Your task to perform on an android device: open app "Pandora - Music & Podcasts" (install if not already installed) and go to login screen Image 0: 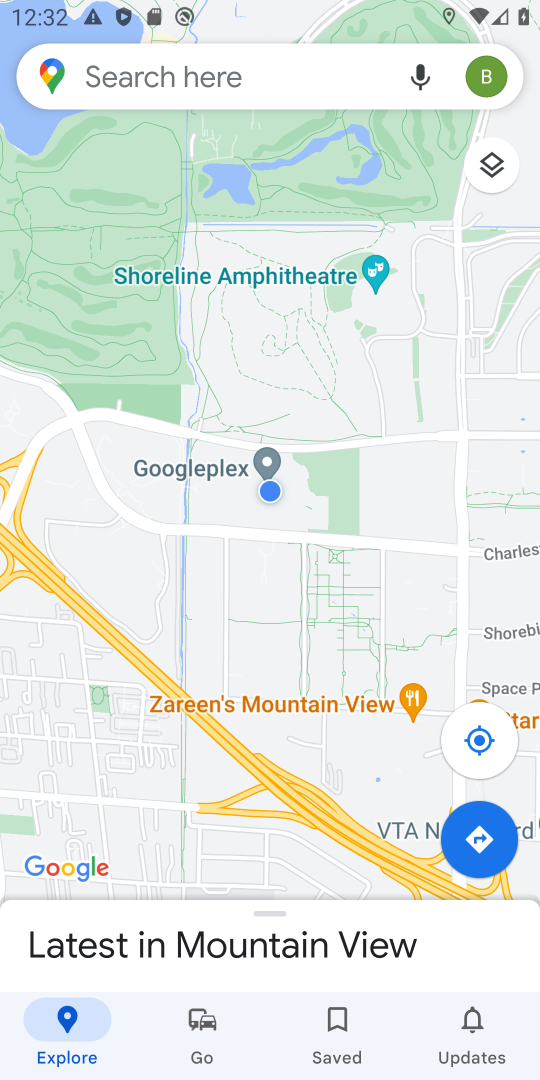
Step 0: press home button
Your task to perform on an android device: open app "Pandora - Music & Podcasts" (install if not already installed) and go to login screen Image 1: 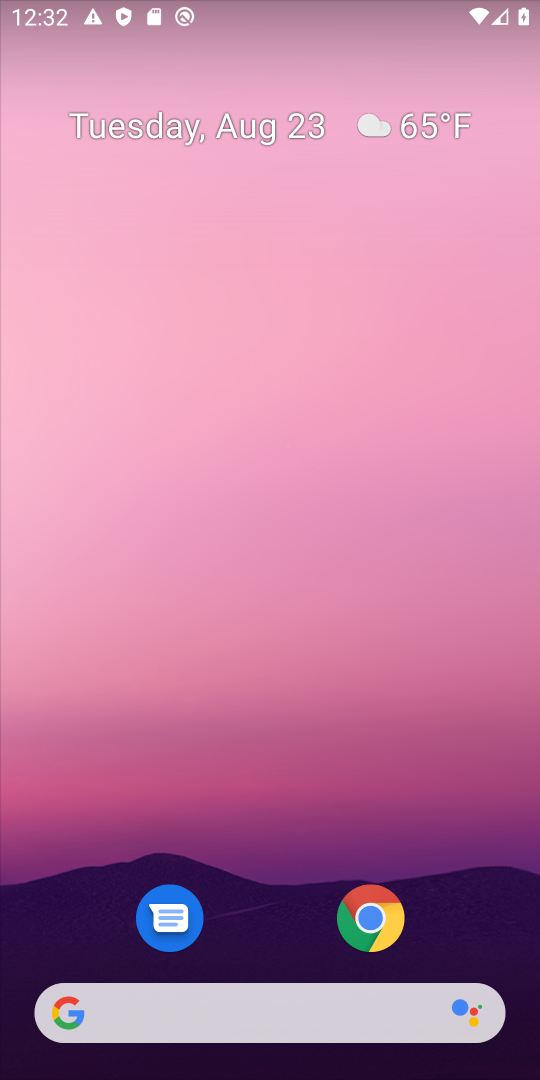
Step 1: drag from (276, 950) to (314, 70)
Your task to perform on an android device: open app "Pandora - Music & Podcasts" (install if not already installed) and go to login screen Image 2: 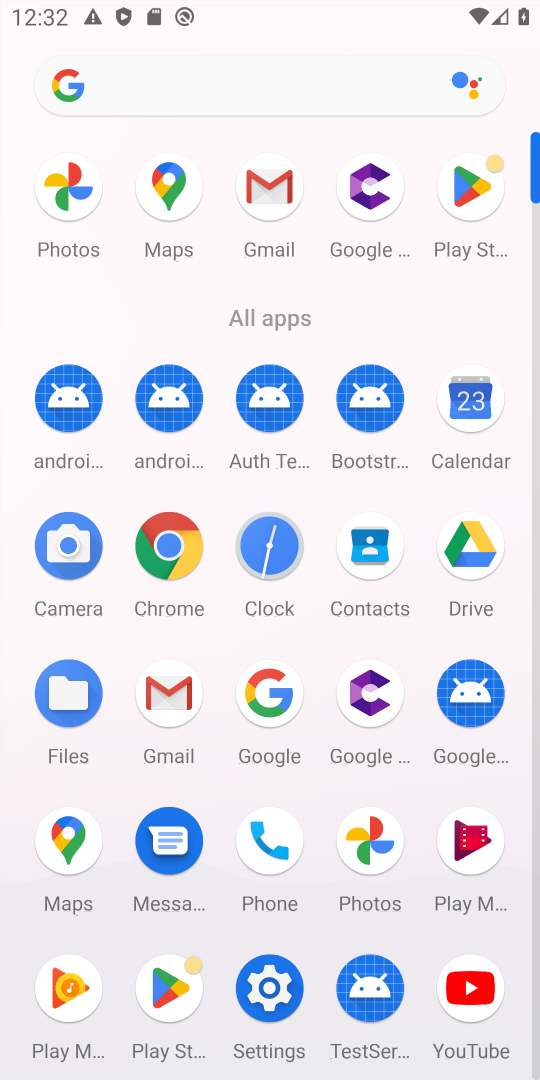
Step 2: click (465, 179)
Your task to perform on an android device: open app "Pandora - Music & Podcasts" (install if not already installed) and go to login screen Image 3: 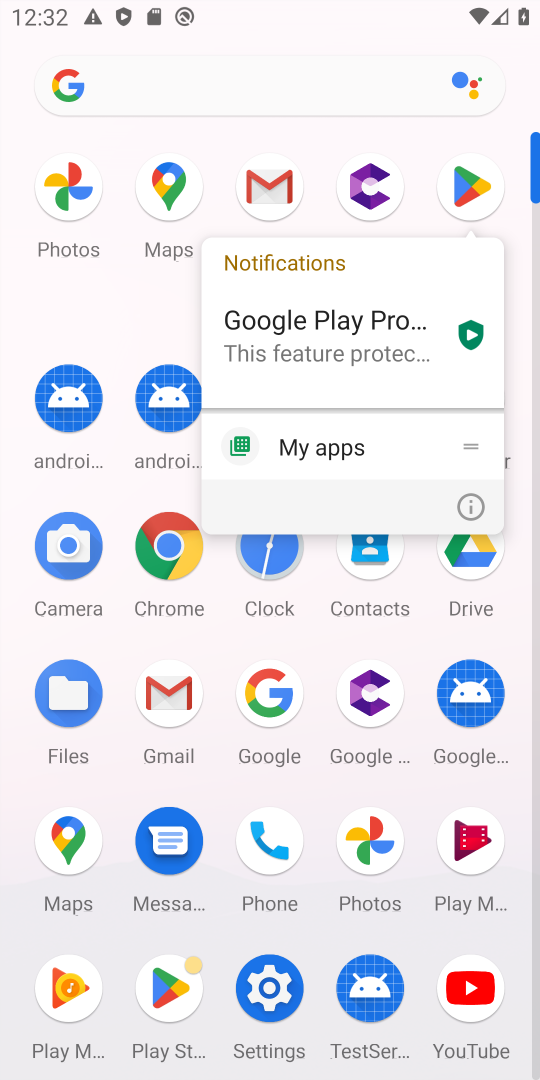
Step 3: click (465, 179)
Your task to perform on an android device: open app "Pandora - Music & Podcasts" (install if not already installed) and go to login screen Image 4: 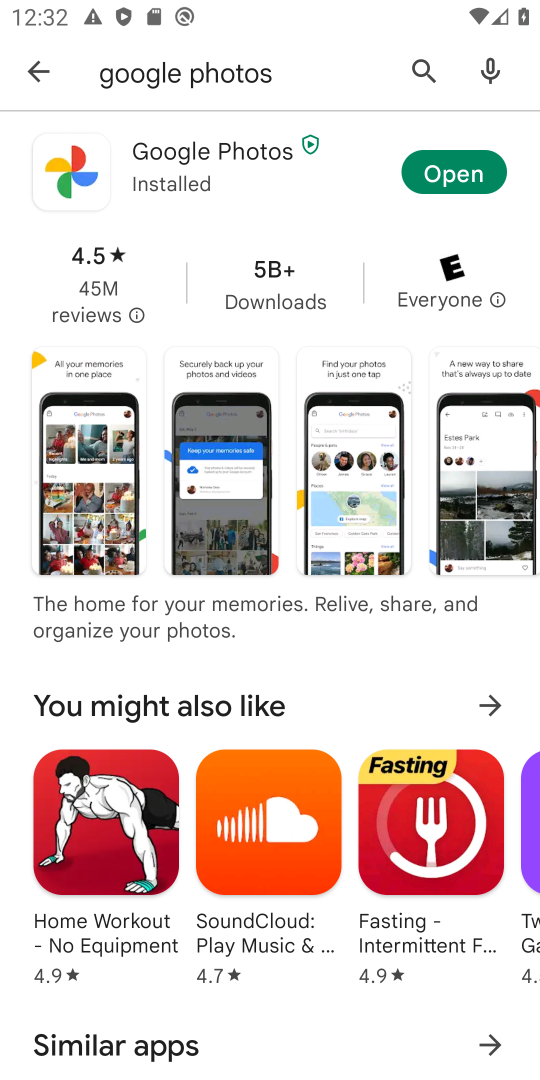
Step 4: click (421, 70)
Your task to perform on an android device: open app "Pandora - Music & Podcasts" (install if not already installed) and go to login screen Image 5: 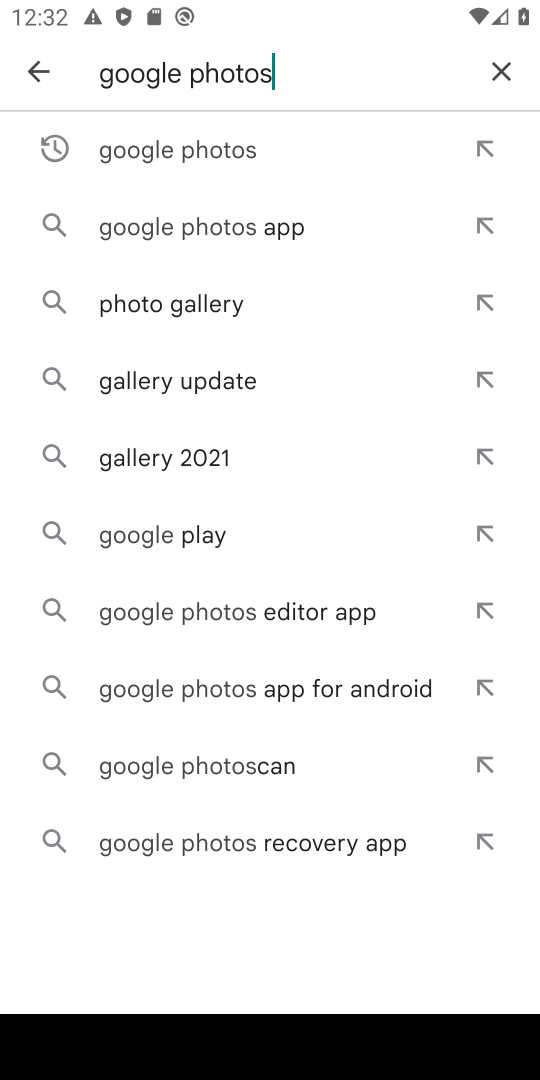
Step 5: click (495, 69)
Your task to perform on an android device: open app "Pandora - Music & Podcasts" (install if not already installed) and go to login screen Image 6: 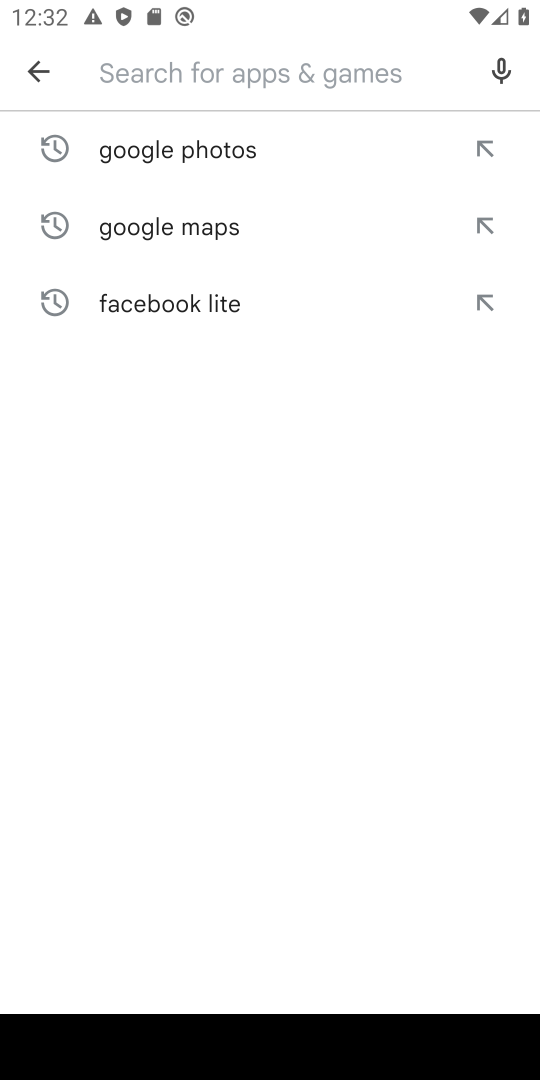
Step 6: type "Pandora - Music & Podcasts"
Your task to perform on an android device: open app "Pandora - Music & Podcasts" (install if not already installed) and go to login screen Image 7: 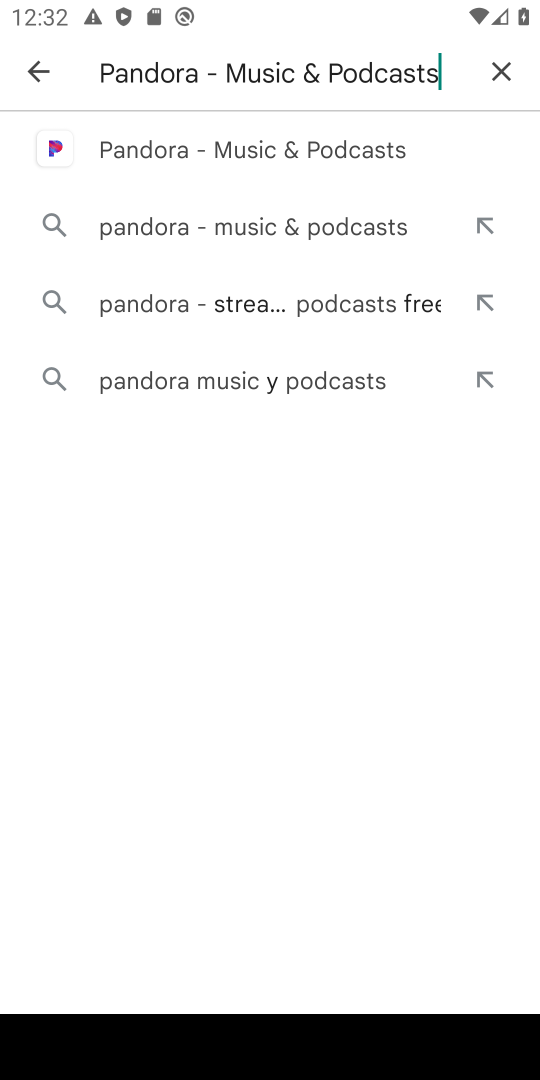
Step 7: click (202, 145)
Your task to perform on an android device: open app "Pandora - Music & Podcasts" (install if not already installed) and go to login screen Image 8: 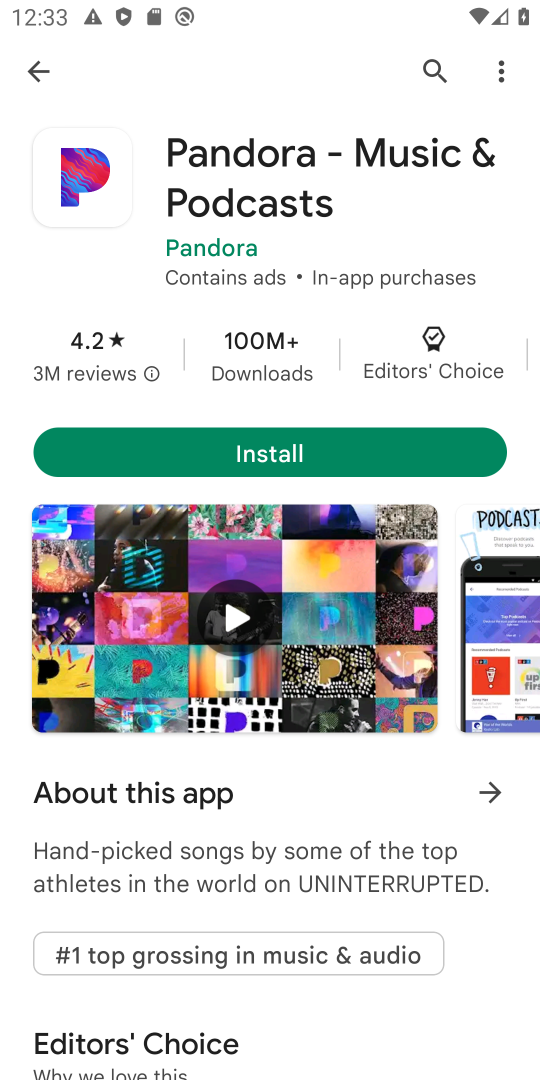
Step 8: click (290, 444)
Your task to perform on an android device: open app "Pandora - Music & Podcasts" (install if not already installed) and go to login screen Image 9: 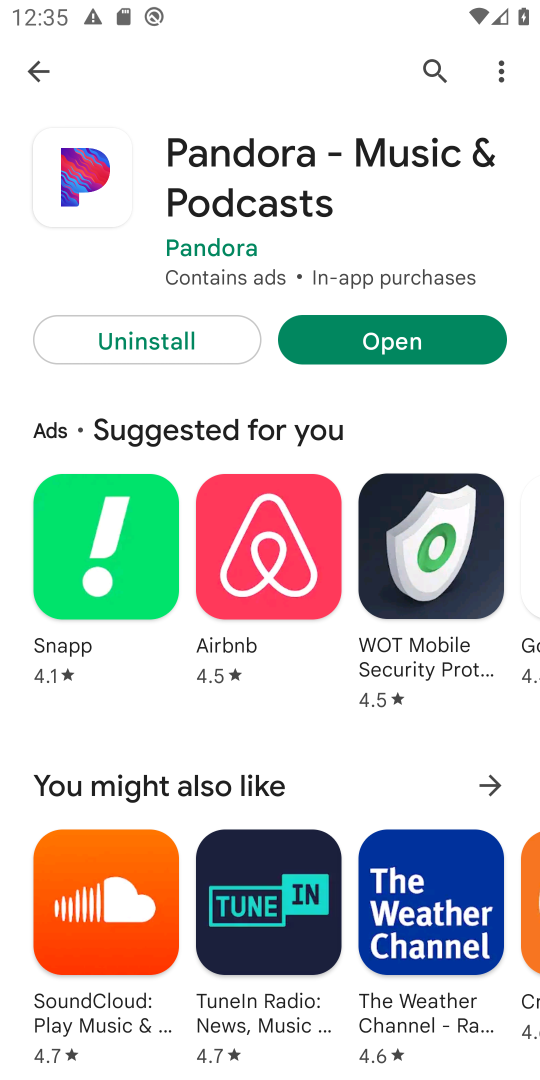
Step 9: click (388, 344)
Your task to perform on an android device: open app "Pandora - Music & Podcasts" (install if not already installed) and go to login screen Image 10: 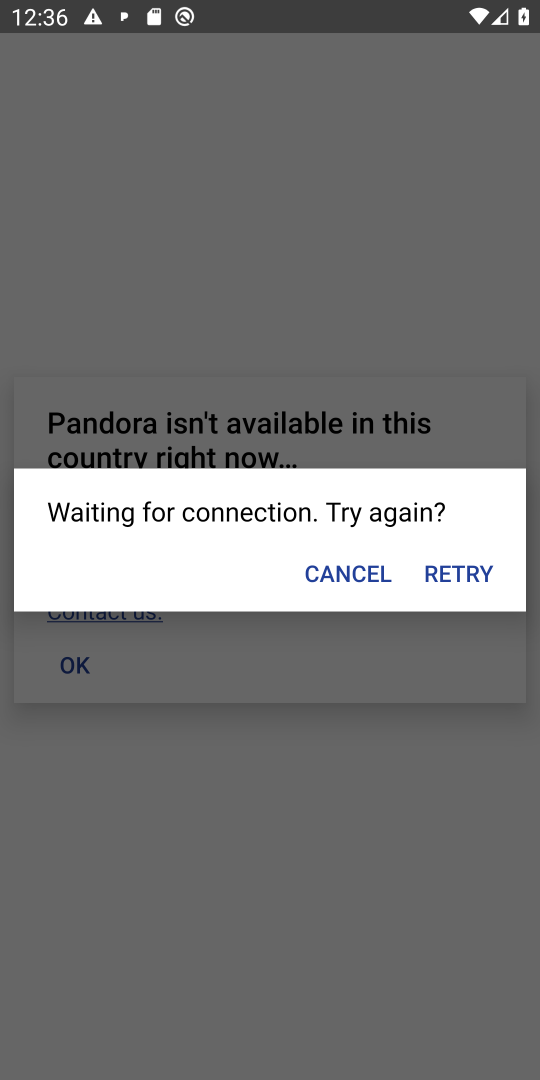
Step 10: click (454, 578)
Your task to perform on an android device: open app "Pandora - Music & Podcasts" (install if not already installed) and go to login screen Image 11: 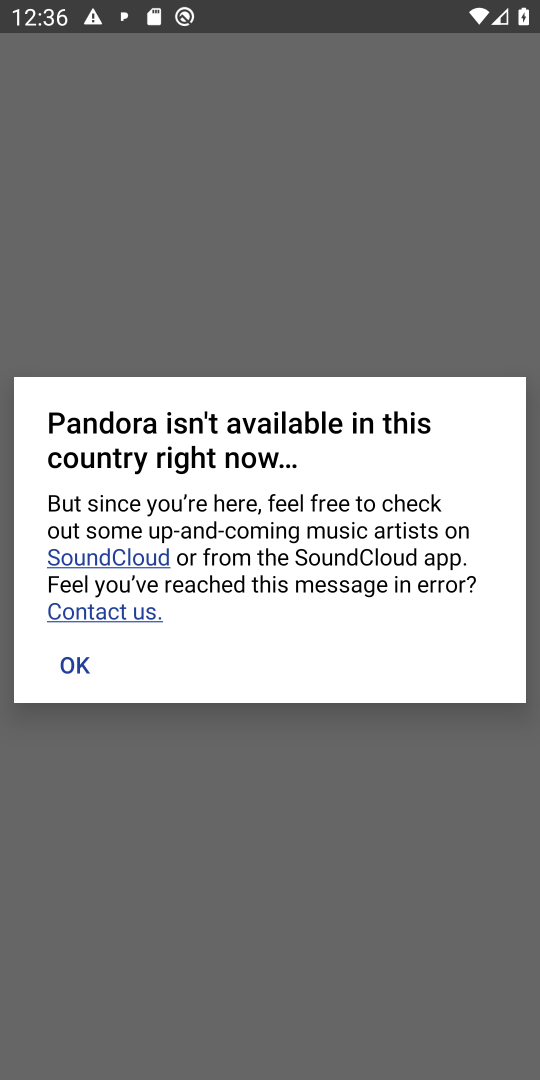
Step 11: click (69, 653)
Your task to perform on an android device: open app "Pandora - Music & Podcasts" (install if not already installed) and go to login screen Image 12: 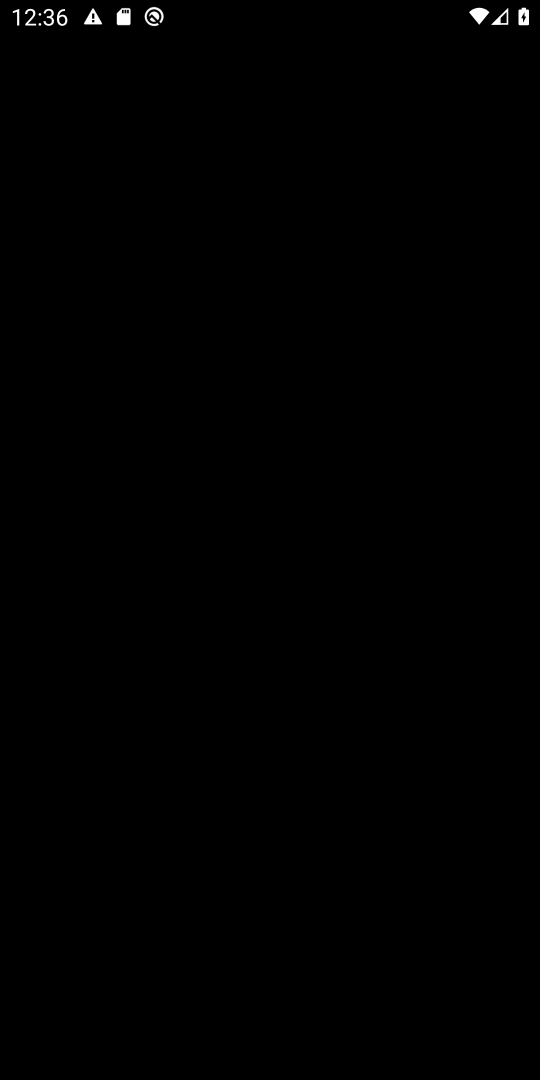
Step 12: task complete